Your task to perform on an android device: Open internet settings Image 0: 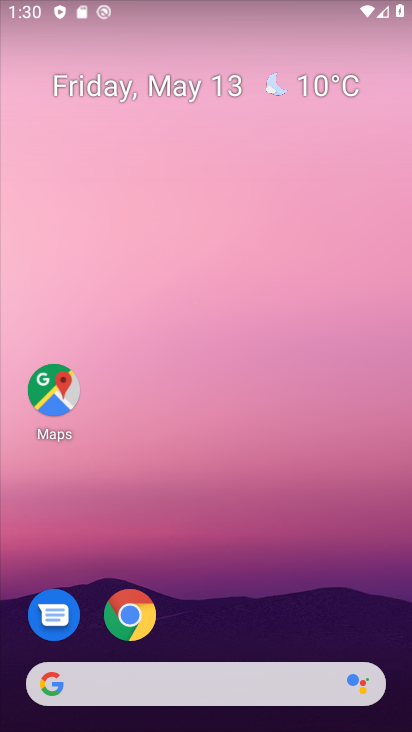
Step 0: drag from (208, 575) to (36, 140)
Your task to perform on an android device: Open internet settings Image 1: 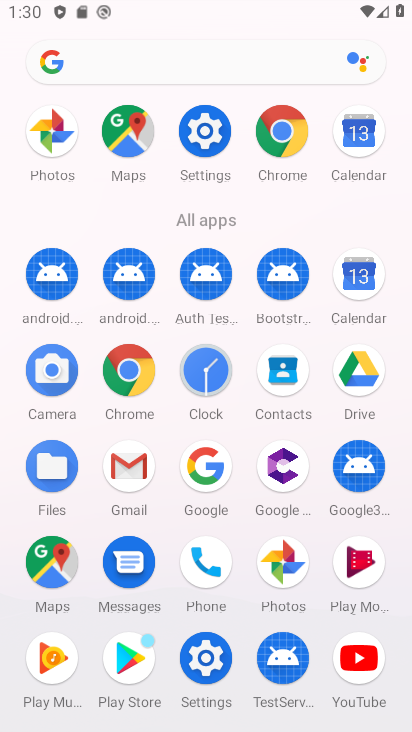
Step 1: click (188, 667)
Your task to perform on an android device: Open internet settings Image 2: 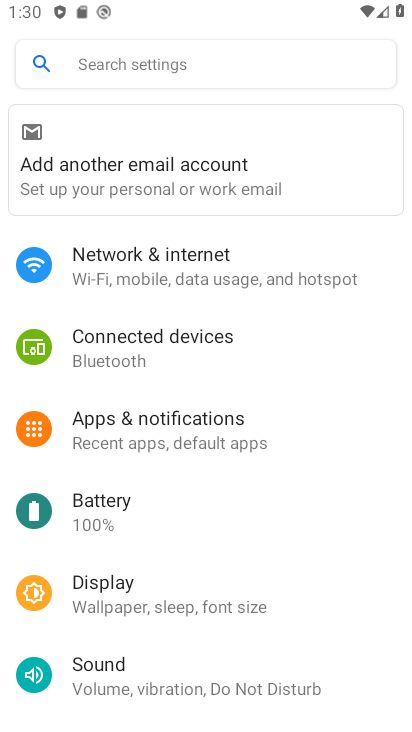
Step 2: click (168, 270)
Your task to perform on an android device: Open internet settings Image 3: 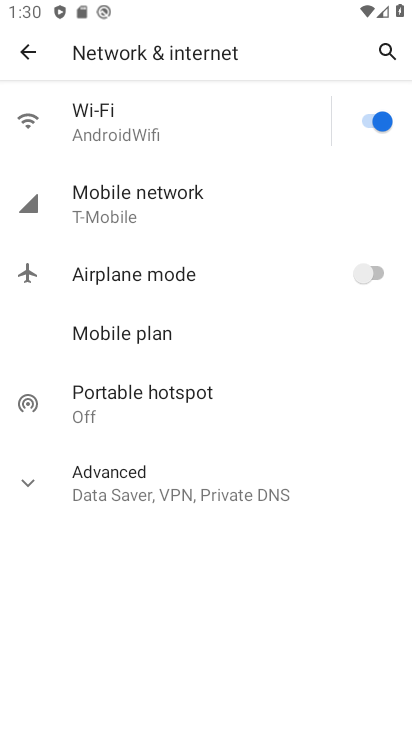
Step 3: task complete